Your task to perform on an android device: Add usb-a to the cart on newegg.com, then select checkout. Image 0: 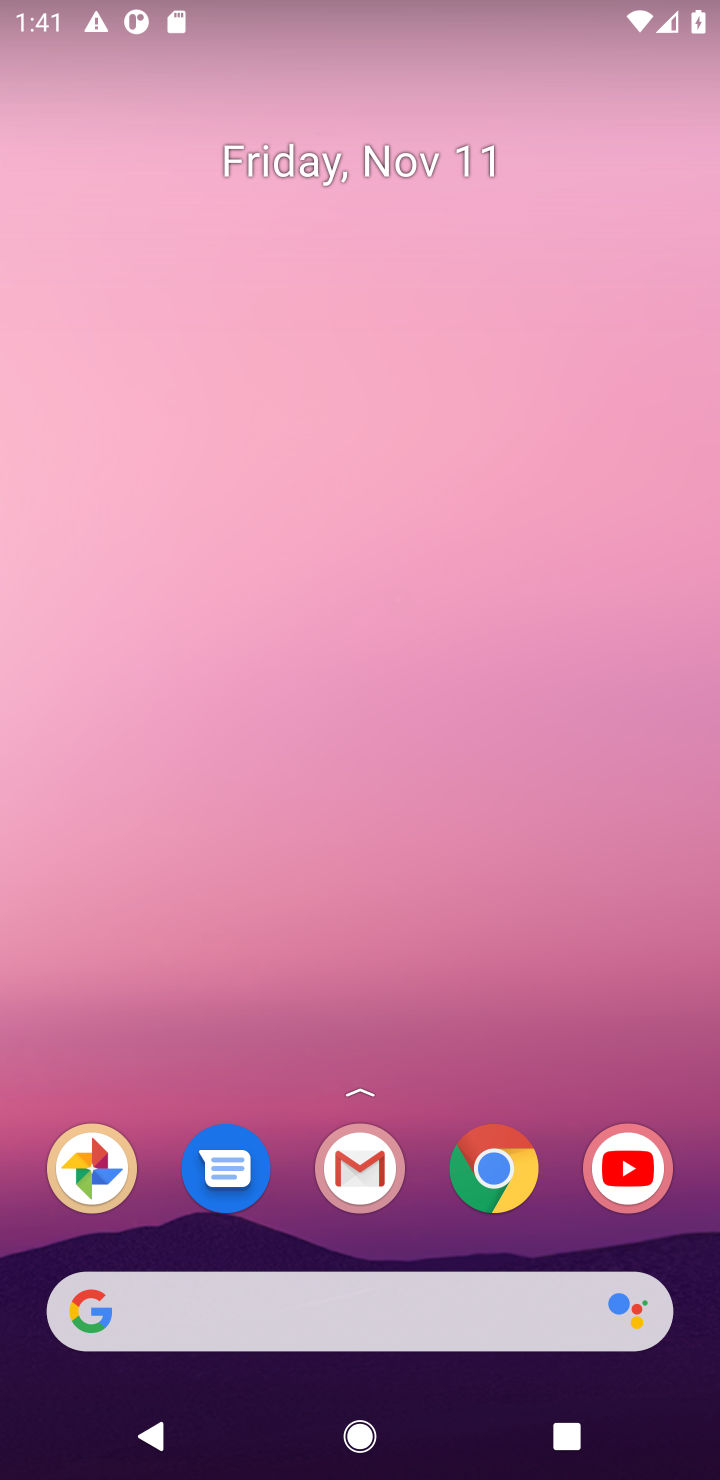
Step 0: click (496, 1176)
Your task to perform on an android device: Add usb-a to the cart on newegg.com, then select checkout. Image 1: 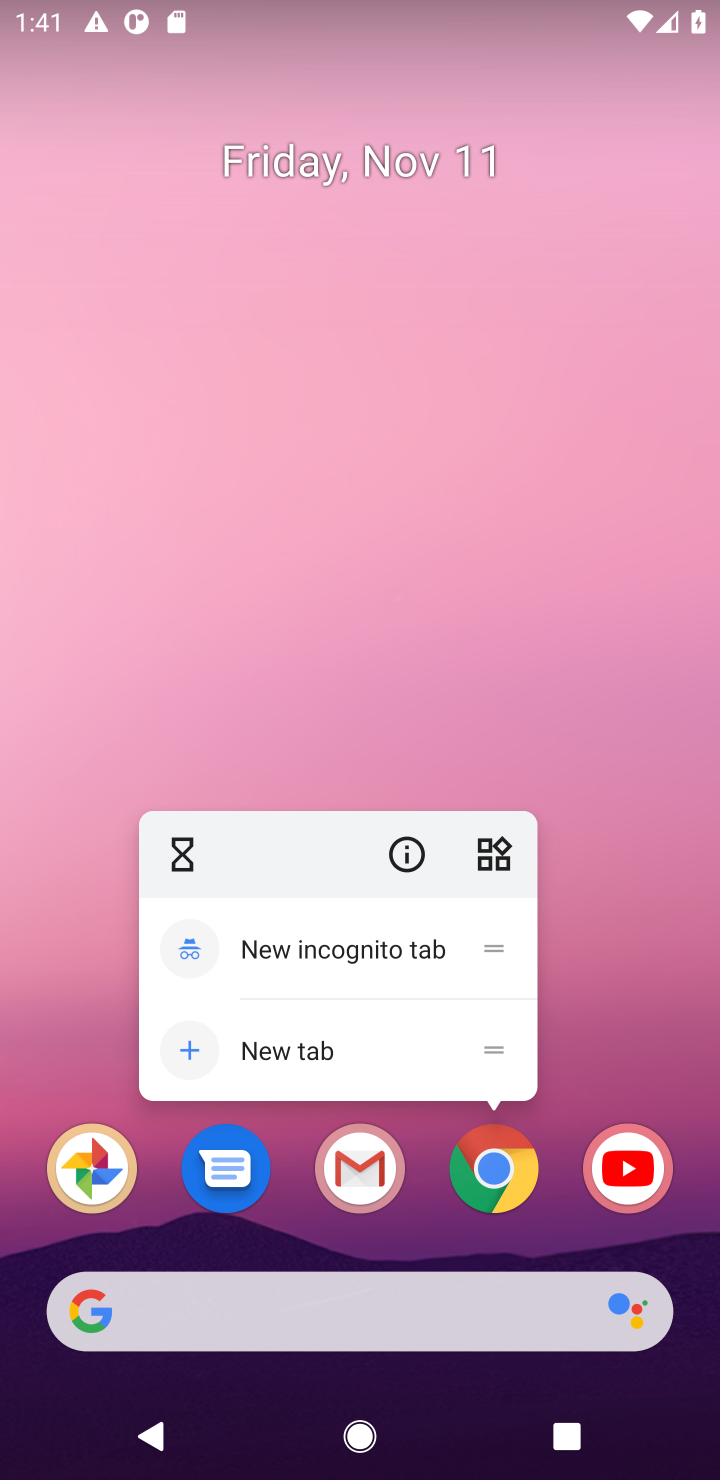
Step 1: click (496, 1176)
Your task to perform on an android device: Add usb-a to the cart on newegg.com, then select checkout. Image 2: 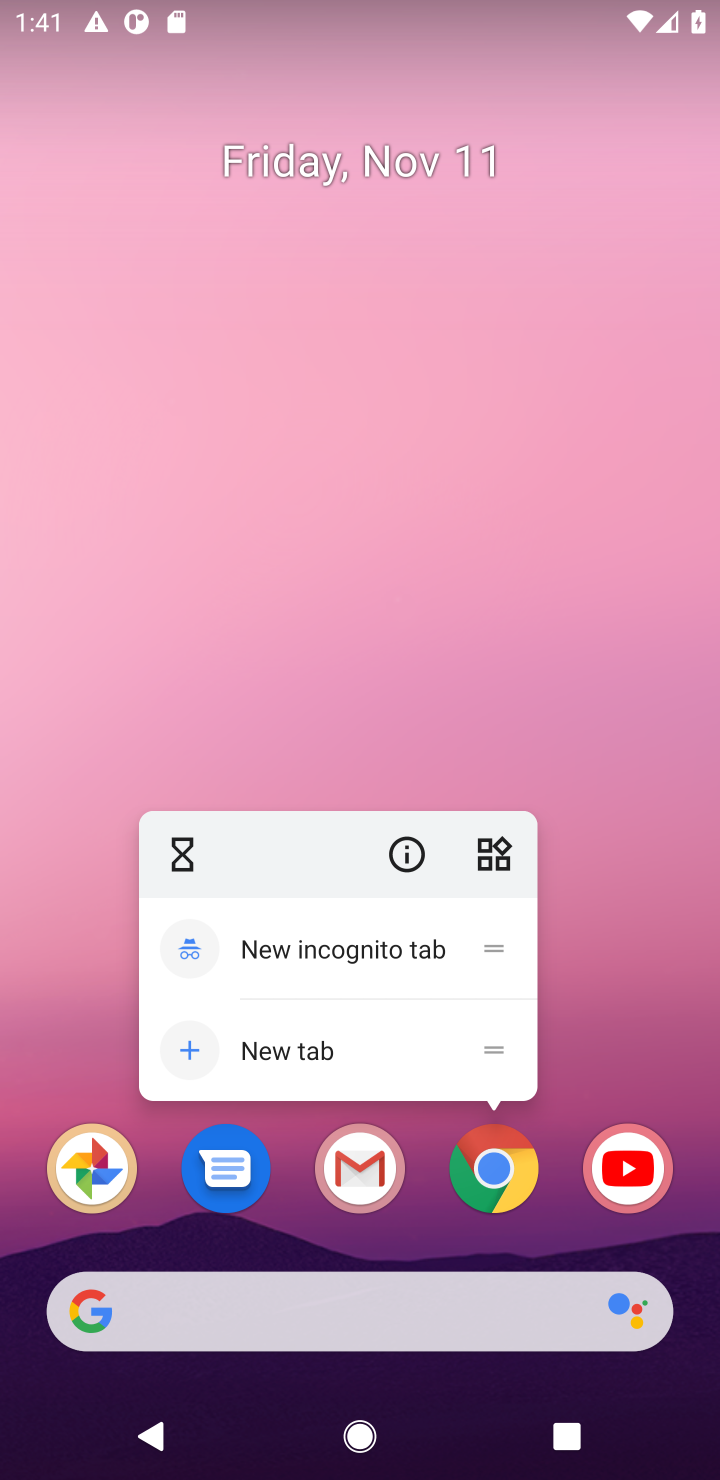
Step 2: click (496, 1176)
Your task to perform on an android device: Add usb-a to the cart on newegg.com, then select checkout. Image 3: 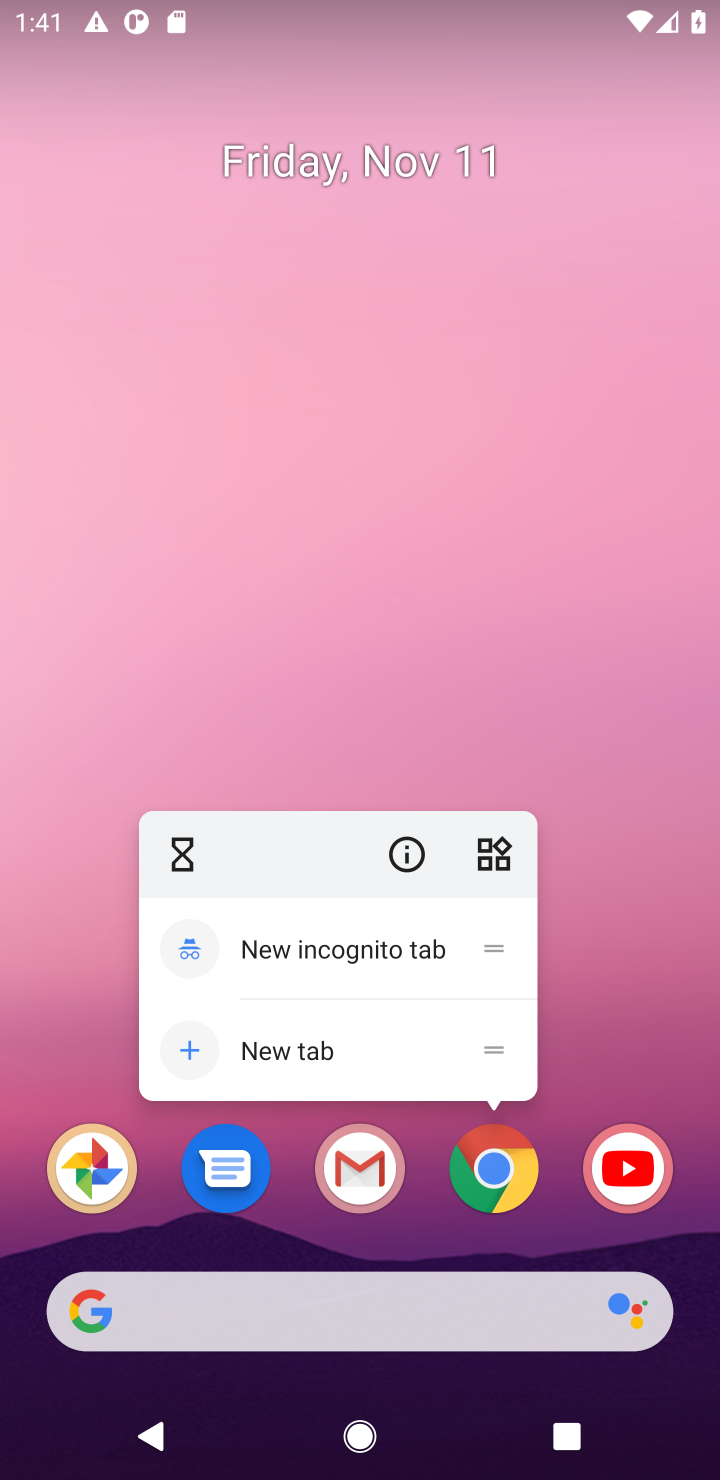
Step 3: click (622, 1026)
Your task to perform on an android device: Add usb-a to the cart on newegg.com, then select checkout. Image 4: 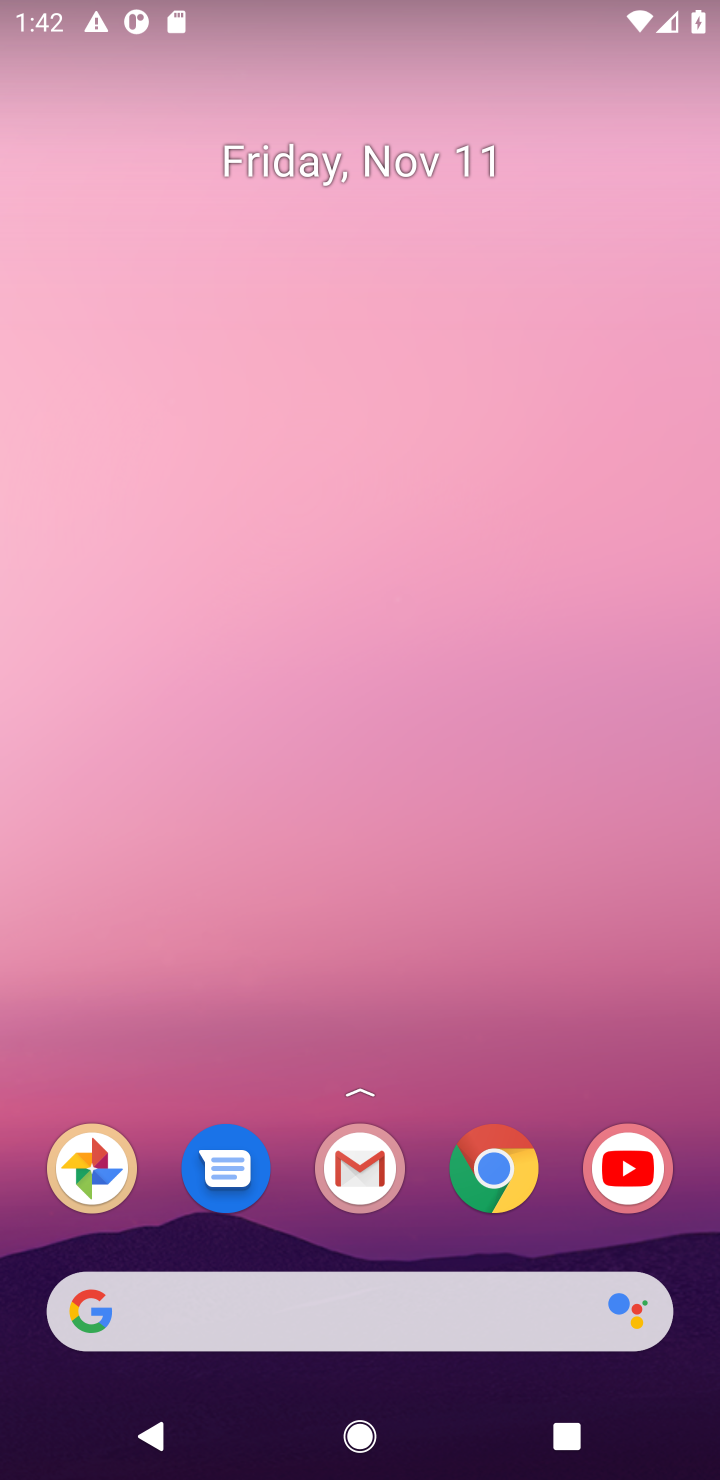
Step 4: click (506, 1178)
Your task to perform on an android device: Add usb-a to the cart on newegg.com, then select checkout. Image 5: 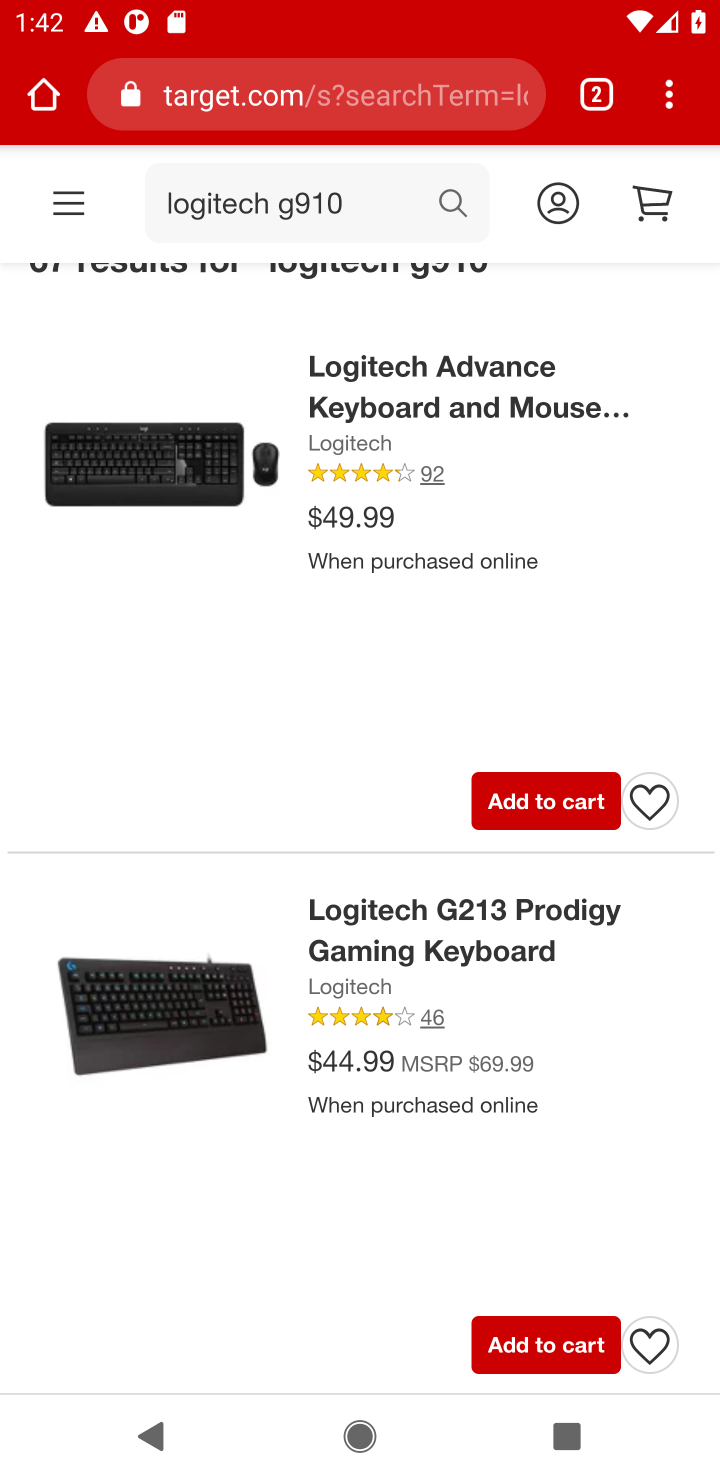
Step 5: click (258, 102)
Your task to perform on an android device: Add usb-a to the cart on newegg.com, then select checkout. Image 6: 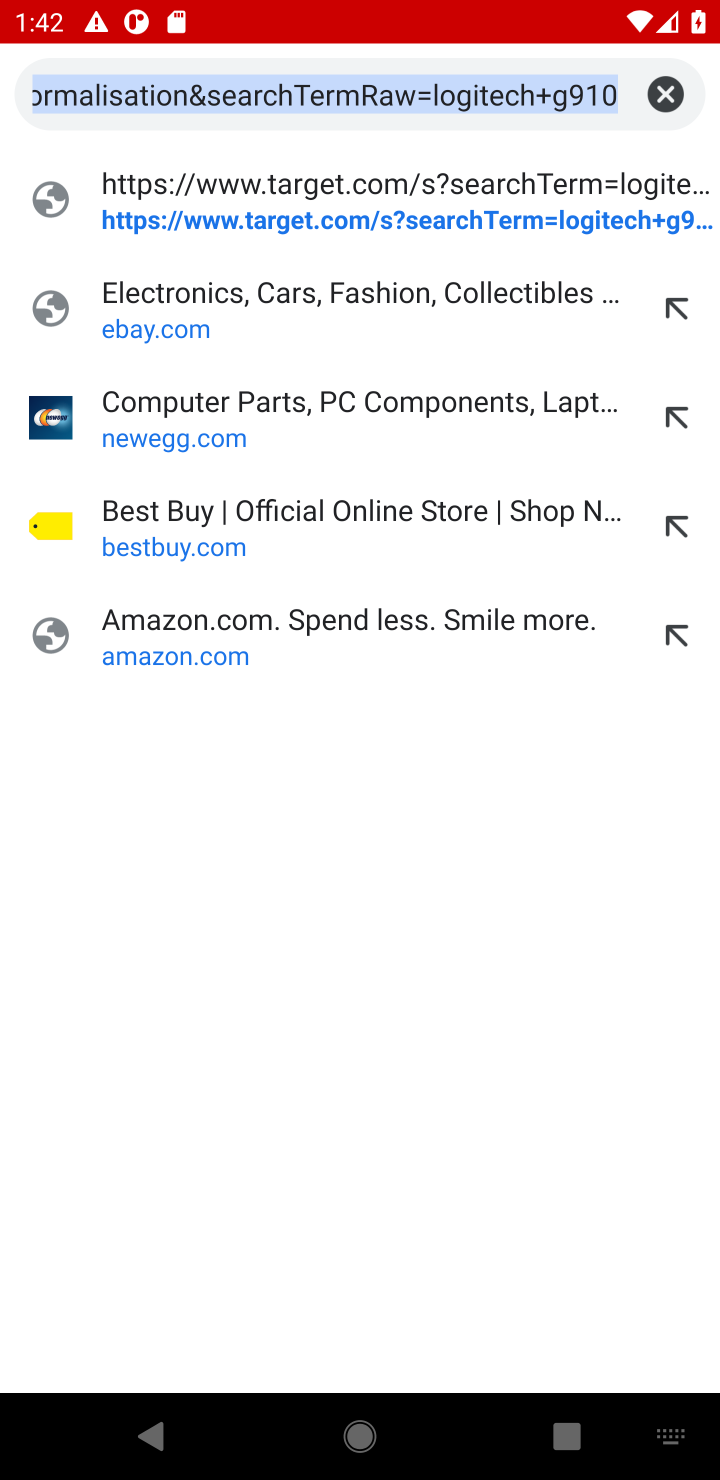
Step 6: click (153, 419)
Your task to perform on an android device: Add usb-a to the cart on newegg.com, then select checkout. Image 7: 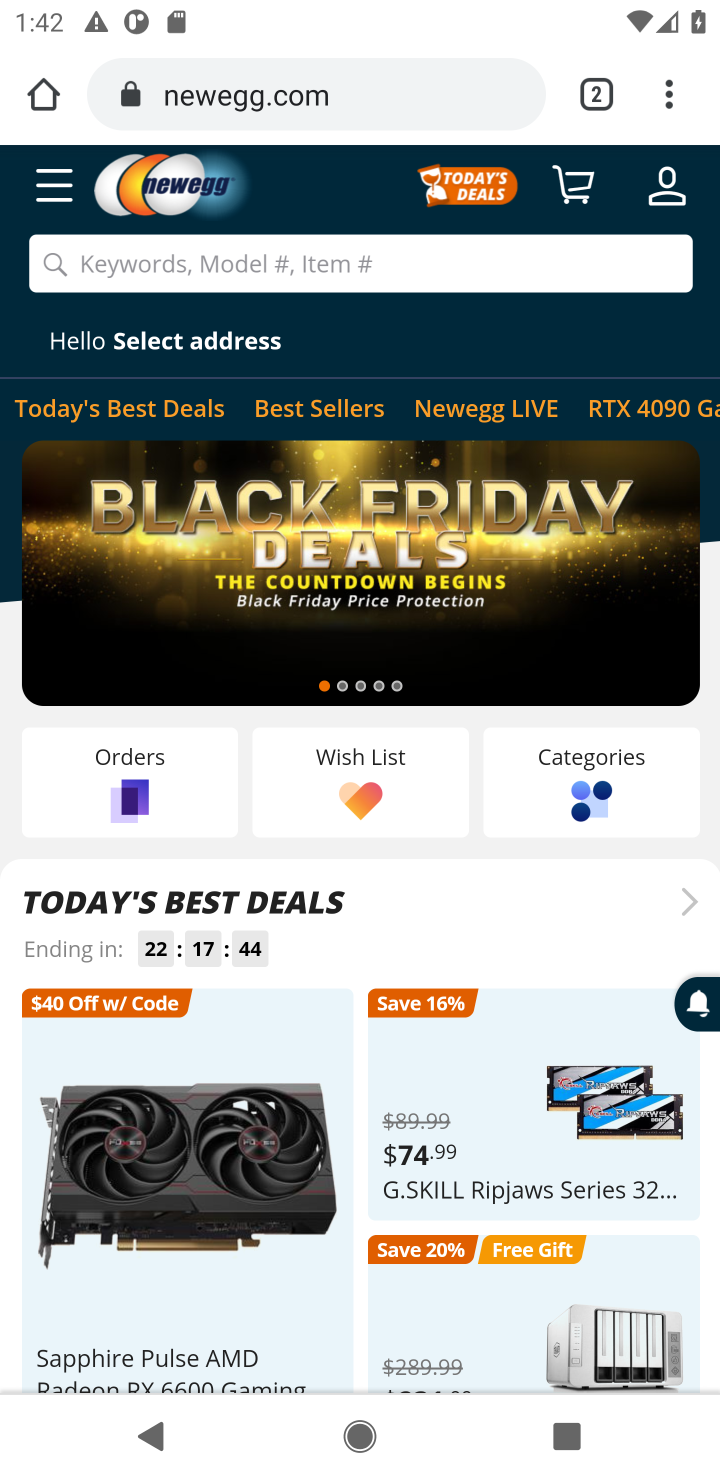
Step 7: click (170, 267)
Your task to perform on an android device: Add usb-a to the cart on newegg.com, then select checkout. Image 8: 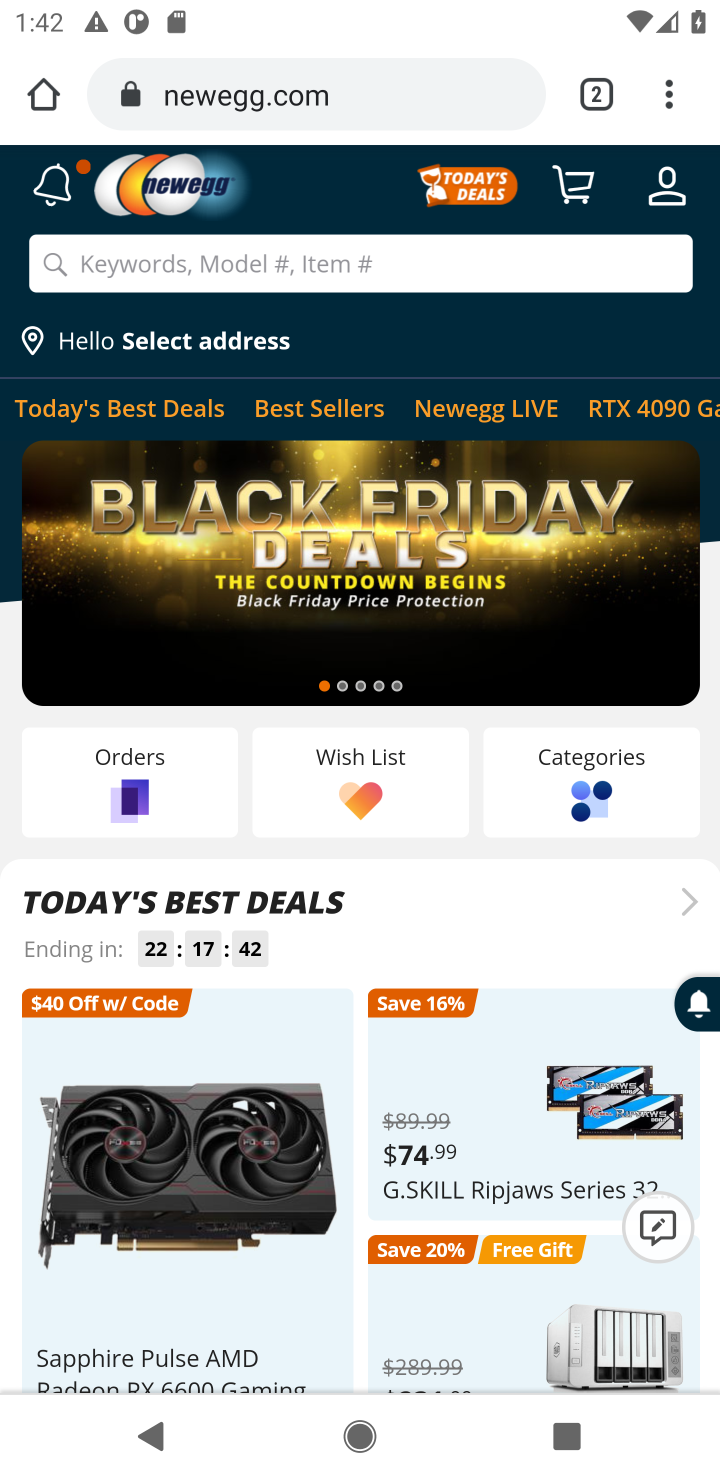
Step 8: type "usb-a"
Your task to perform on an android device: Add usb-a to the cart on newegg.com, then select checkout. Image 9: 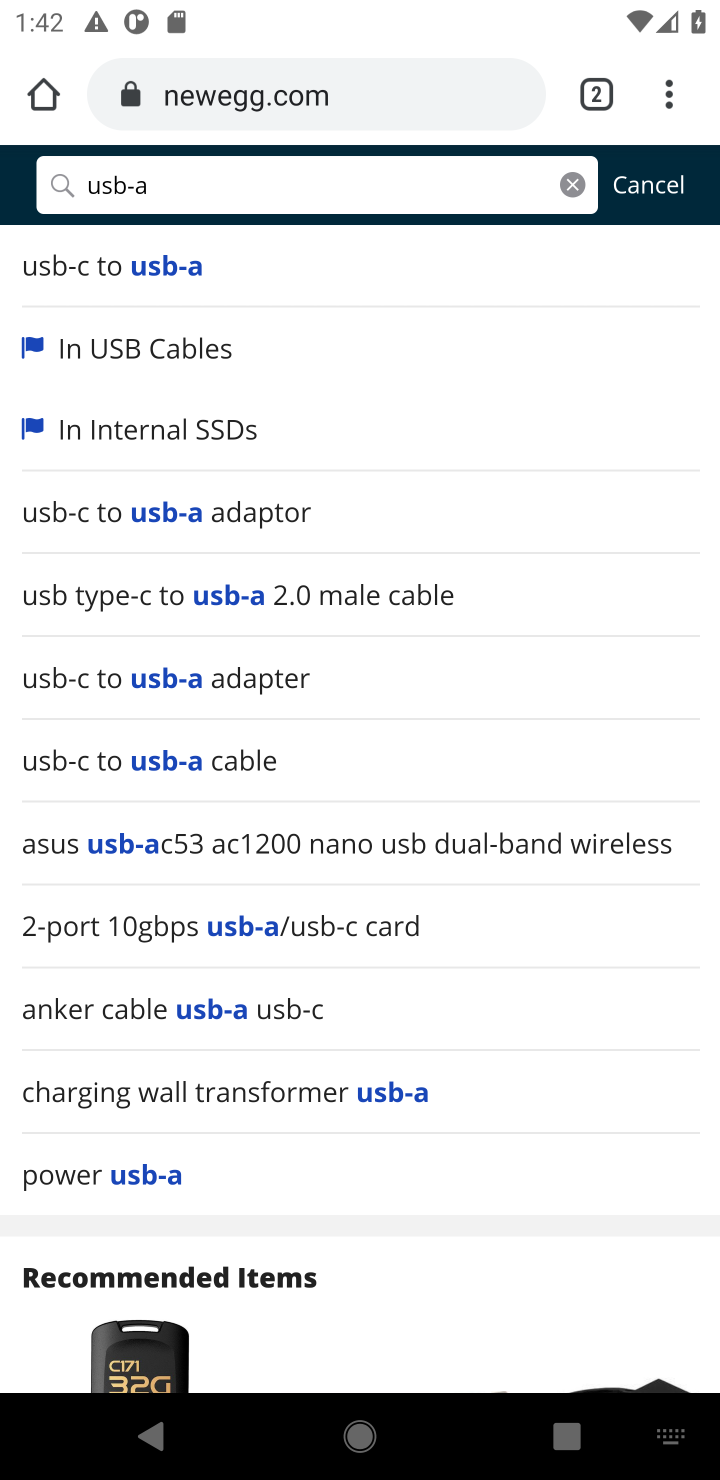
Step 9: click (134, 1181)
Your task to perform on an android device: Add usb-a to the cart on newegg.com, then select checkout. Image 10: 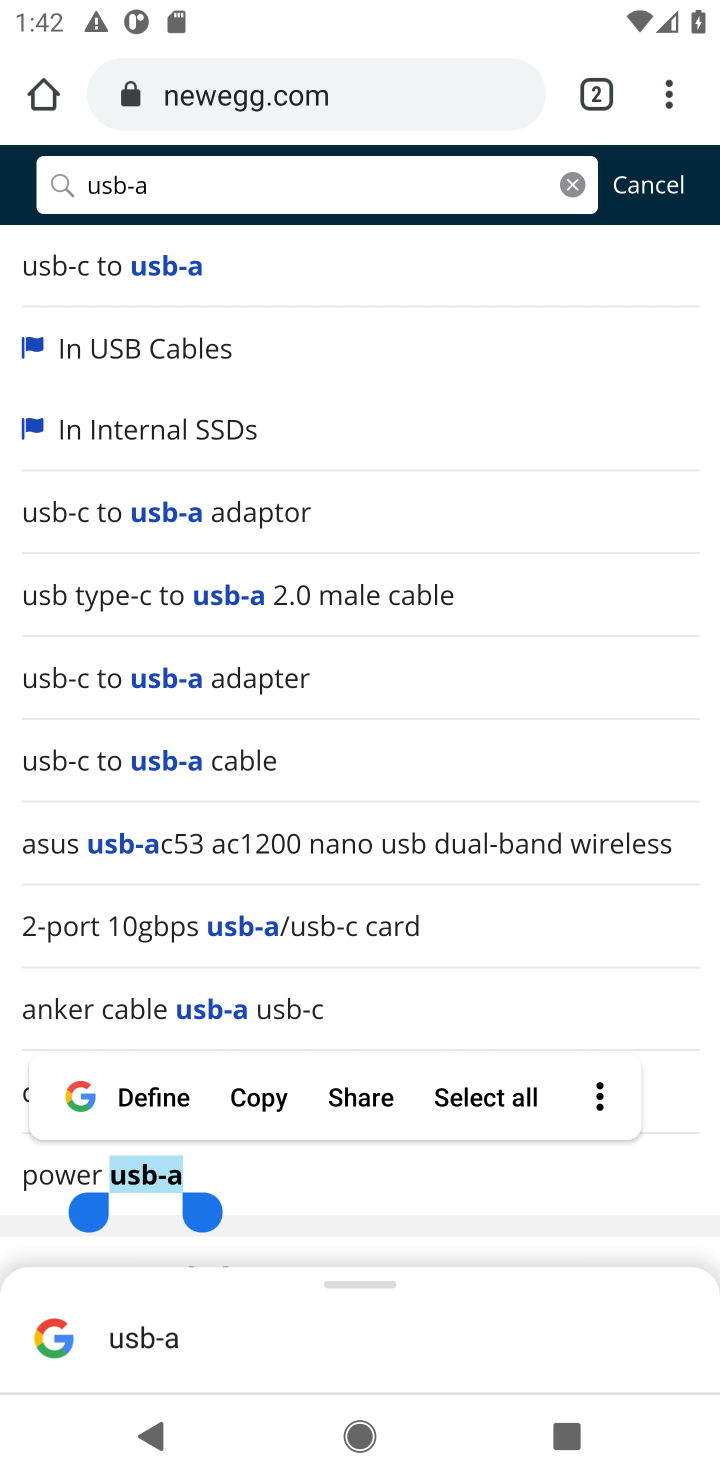
Step 10: click (92, 1178)
Your task to perform on an android device: Add usb-a to the cart on newegg.com, then select checkout. Image 11: 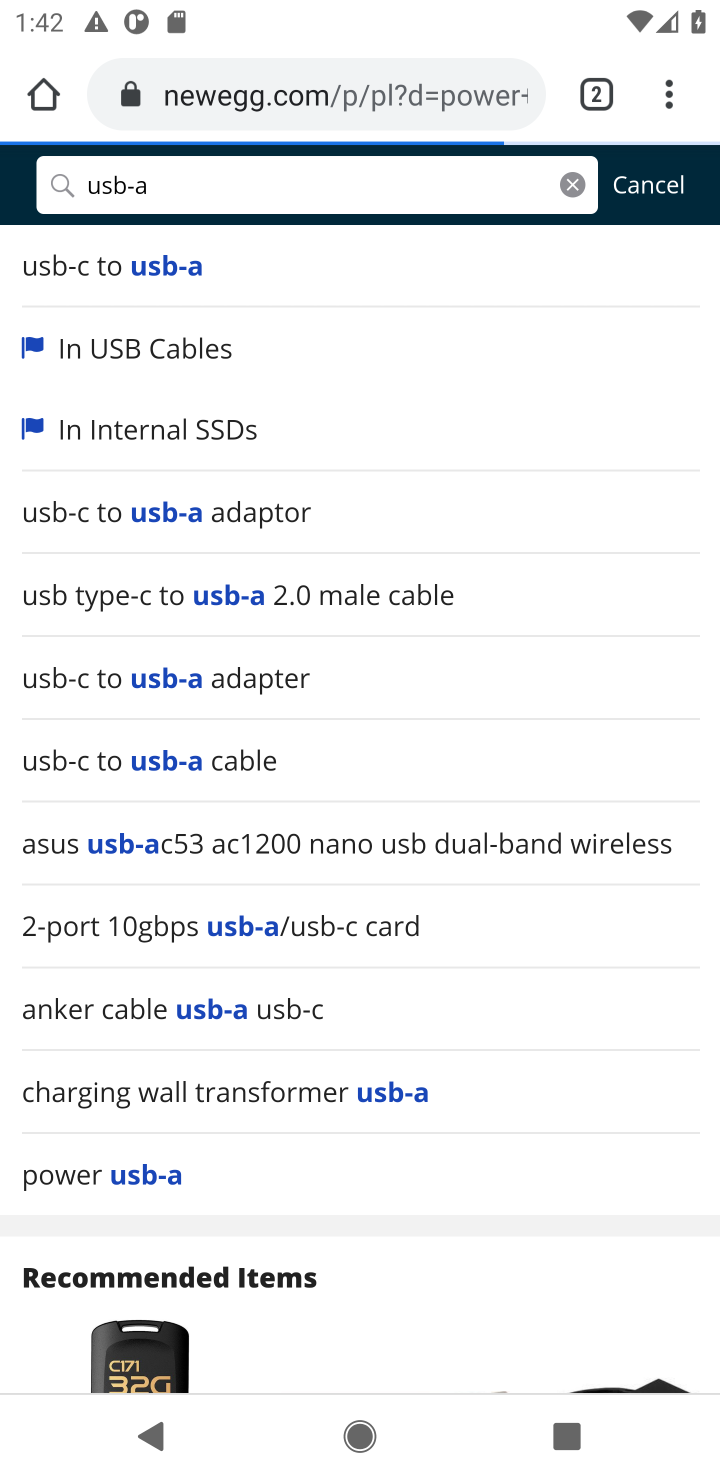
Step 11: click (63, 191)
Your task to perform on an android device: Add usb-a to the cart on newegg.com, then select checkout. Image 12: 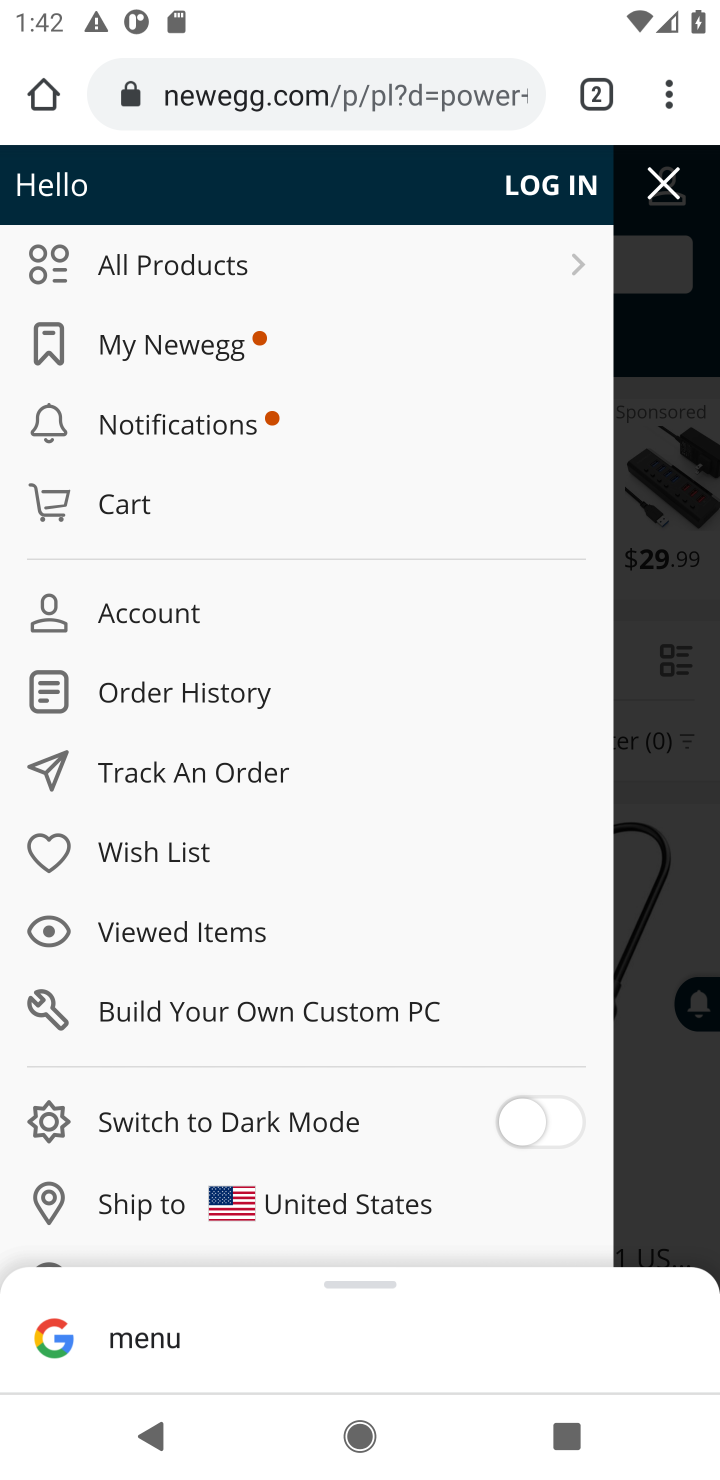
Step 12: click (659, 200)
Your task to perform on an android device: Add usb-a to the cart on newegg.com, then select checkout. Image 13: 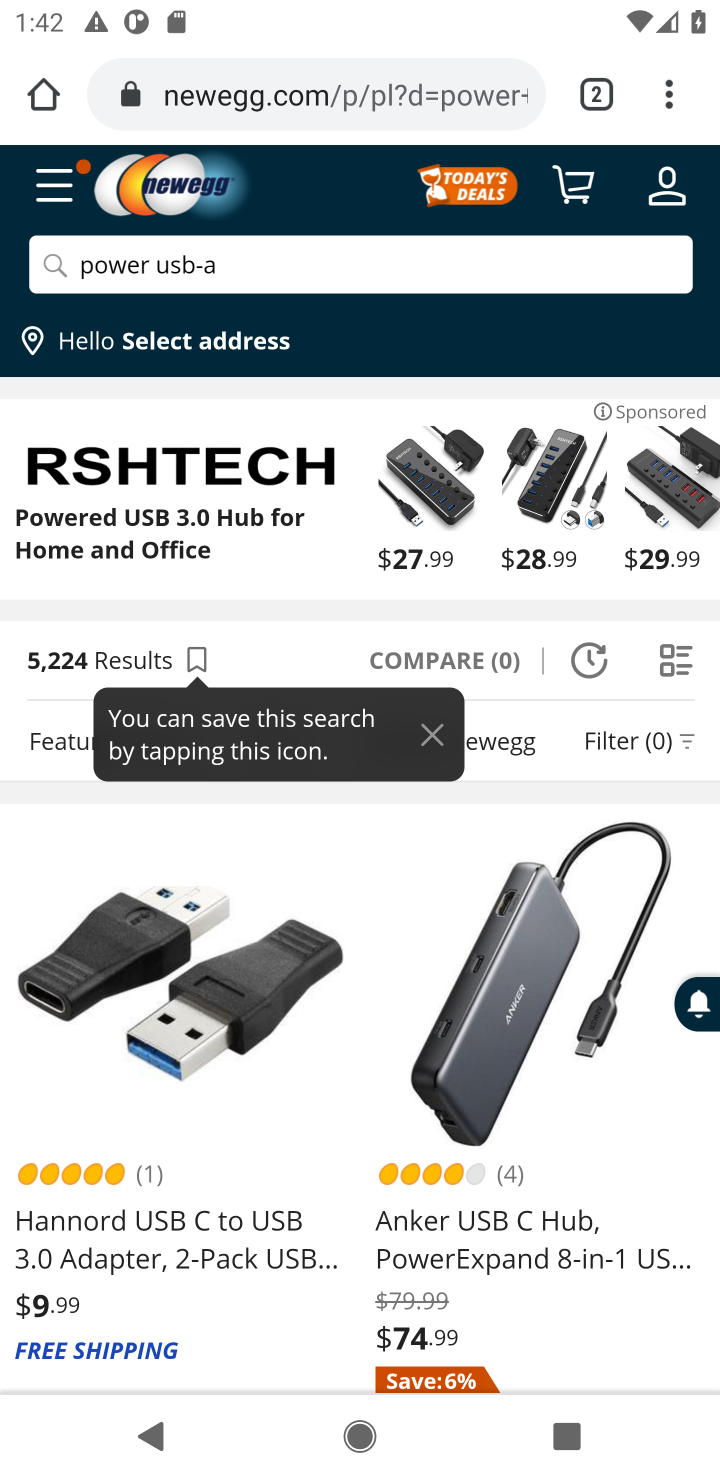
Step 13: click (66, 264)
Your task to perform on an android device: Add usb-a to the cart on newegg.com, then select checkout. Image 14: 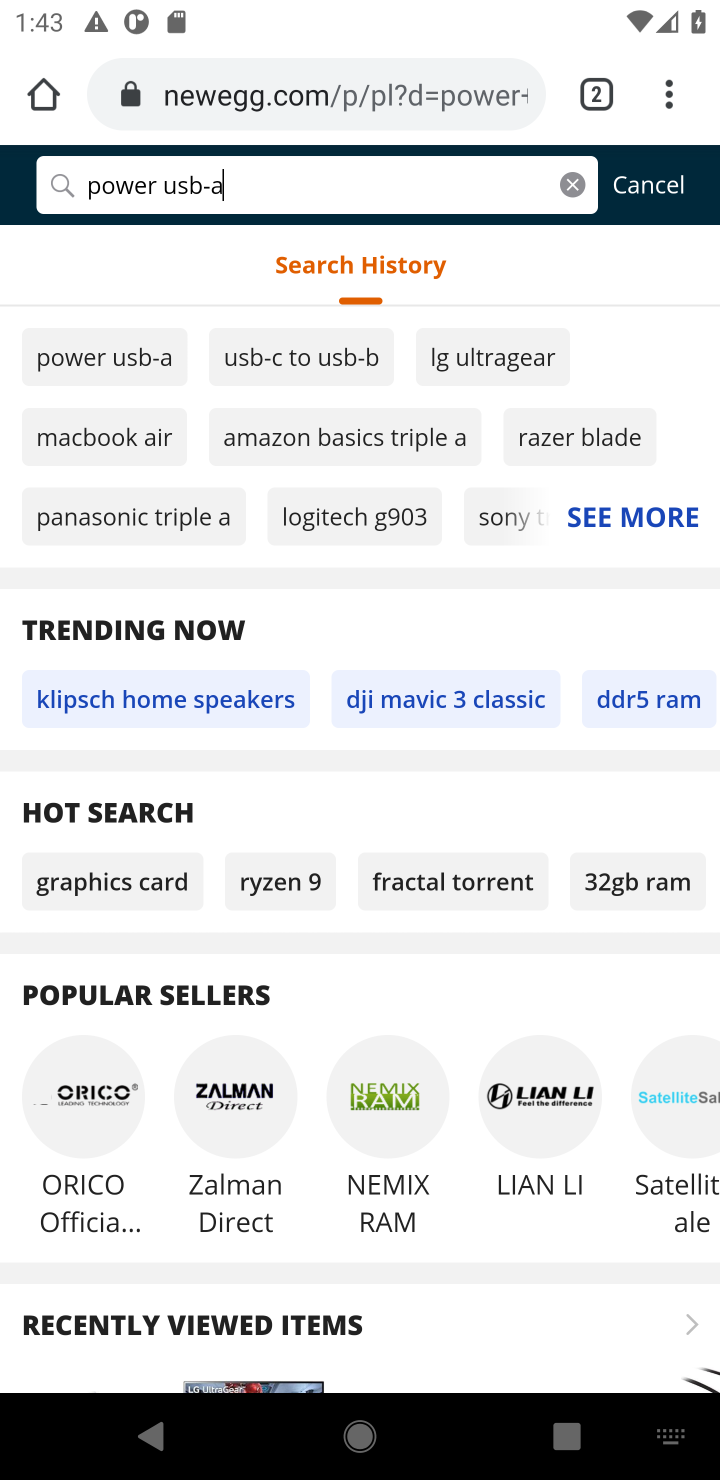
Step 14: click (123, 347)
Your task to perform on an android device: Add usb-a to the cart on newegg.com, then select checkout. Image 15: 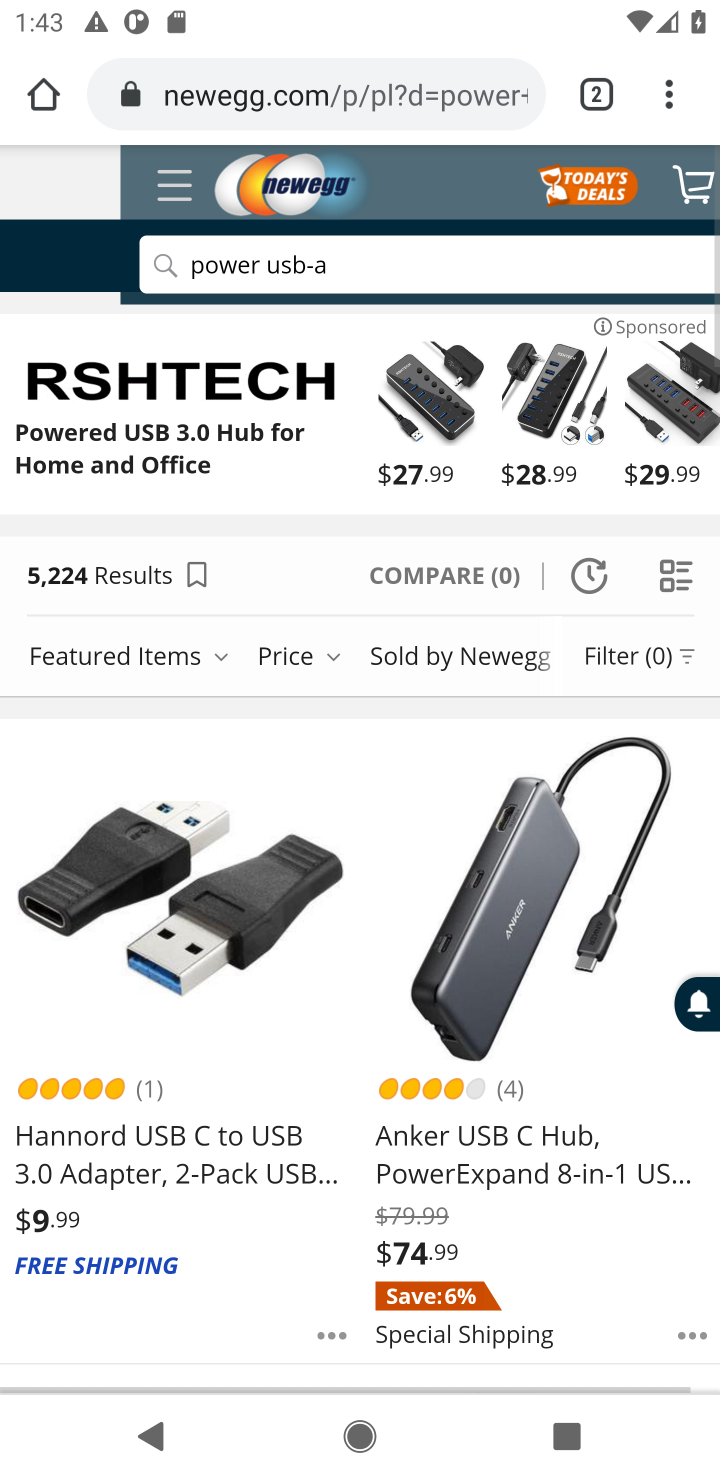
Step 15: click (98, 367)
Your task to perform on an android device: Add usb-a to the cart on newegg.com, then select checkout. Image 16: 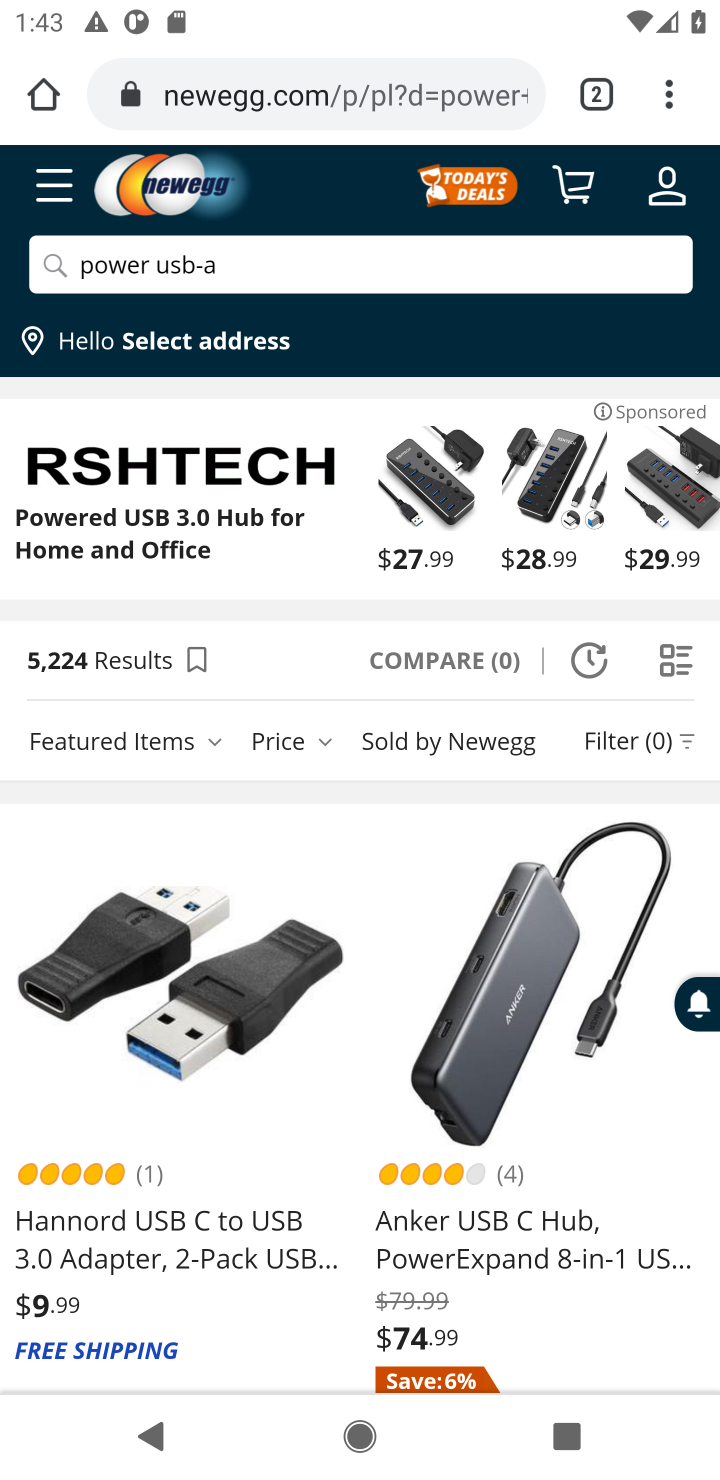
Step 16: drag from (195, 741) to (199, 365)
Your task to perform on an android device: Add usb-a to the cart on newegg.com, then select checkout. Image 17: 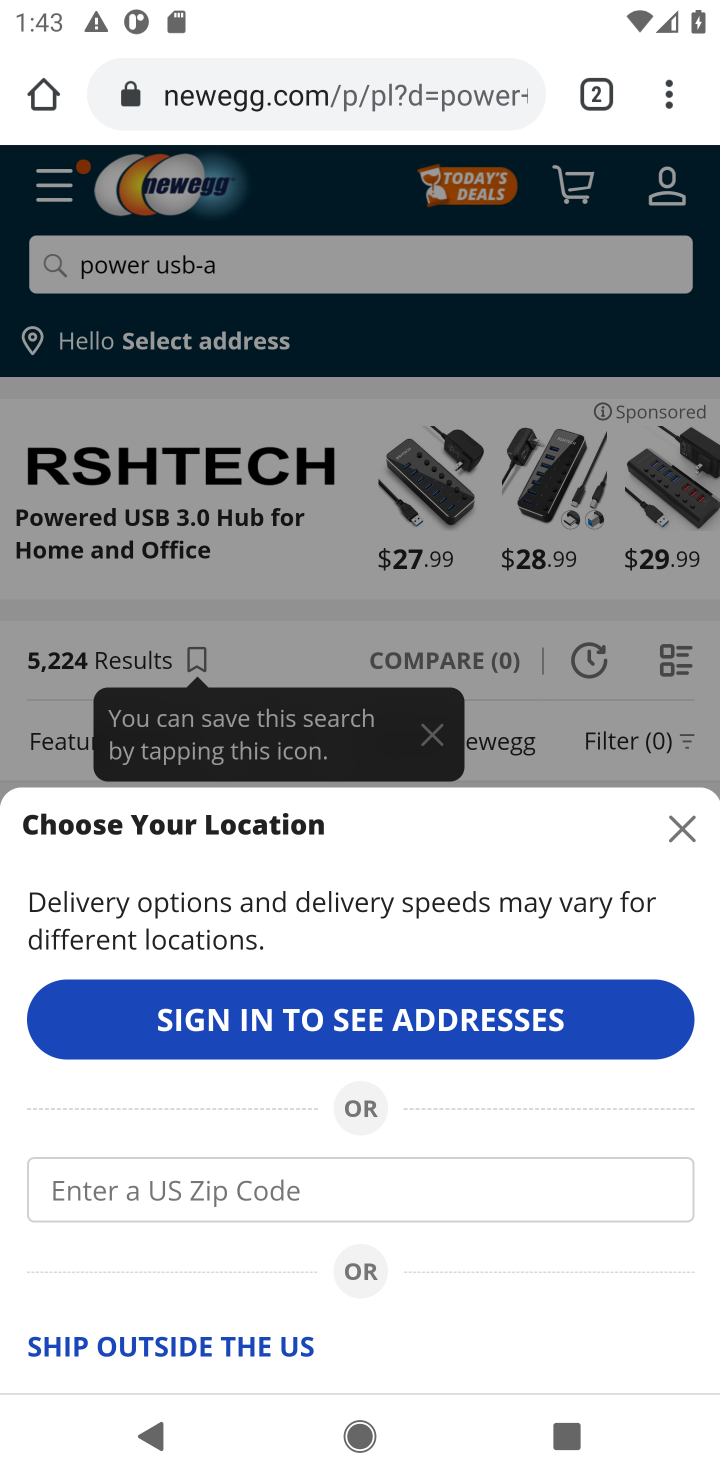
Step 17: click (683, 820)
Your task to perform on an android device: Add usb-a to the cart on newegg.com, then select checkout. Image 18: 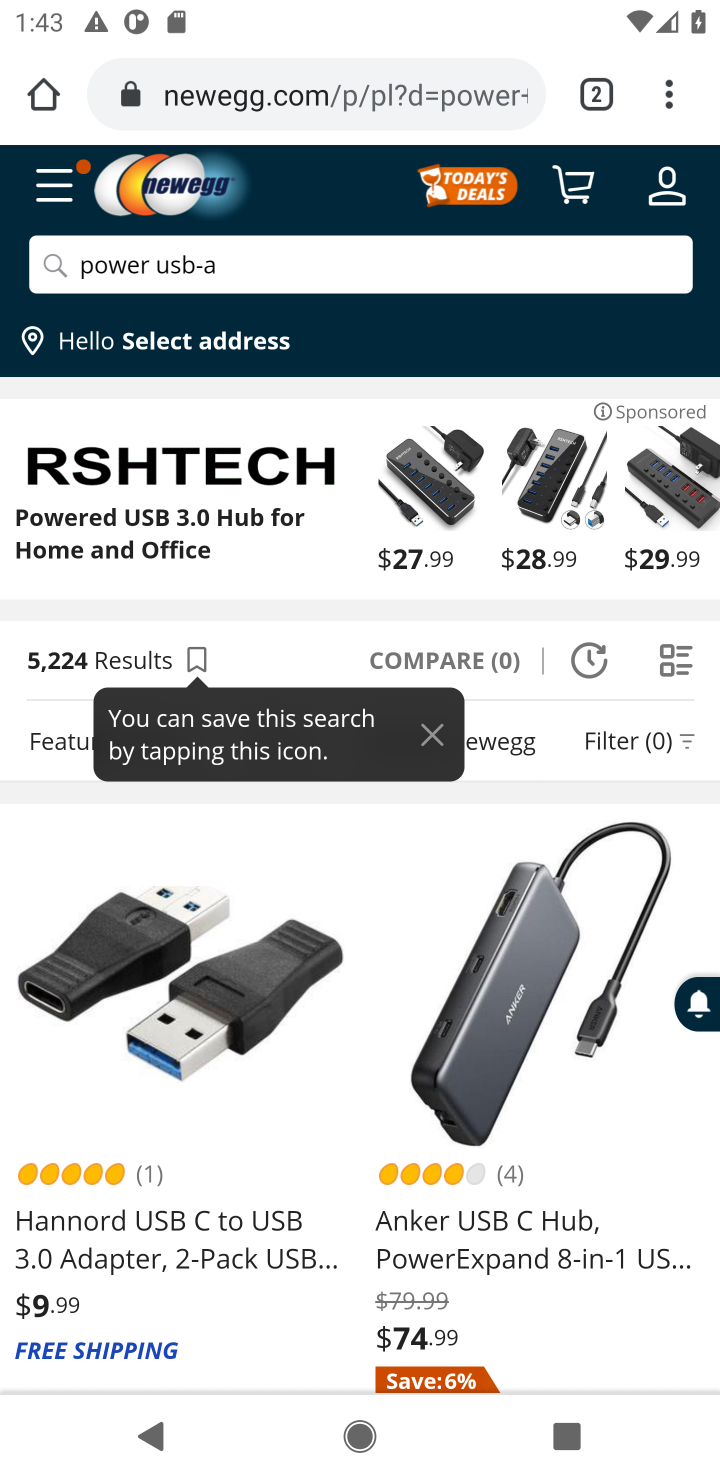
Step 18: click (161, 1071)
Your task to perform on an android device: Add usb-a to the cart on newegg.com, then select checkout. Image 19: 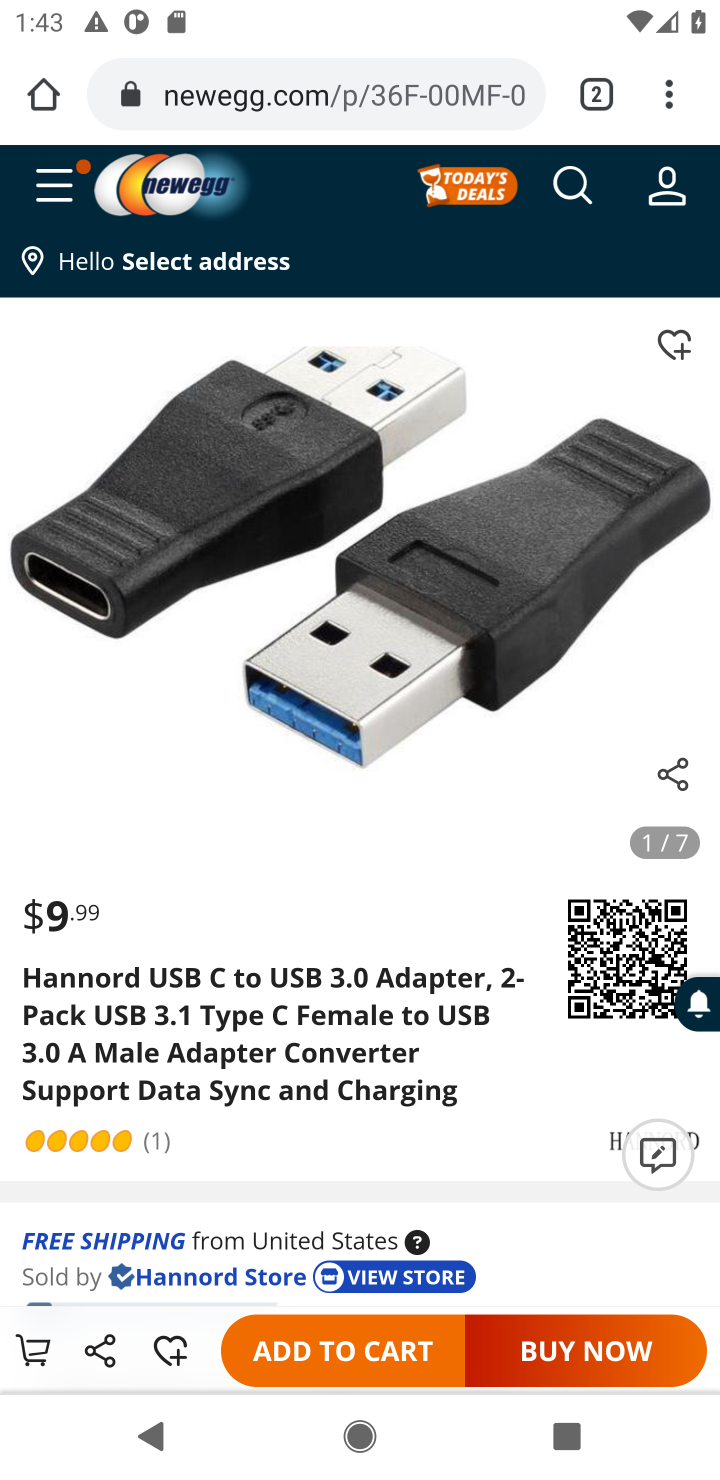
Step 19: click (333, 1350)
Your task to perform on an android device: Add usb-a to the cart on newegg.com, then select checkout. Image 20: 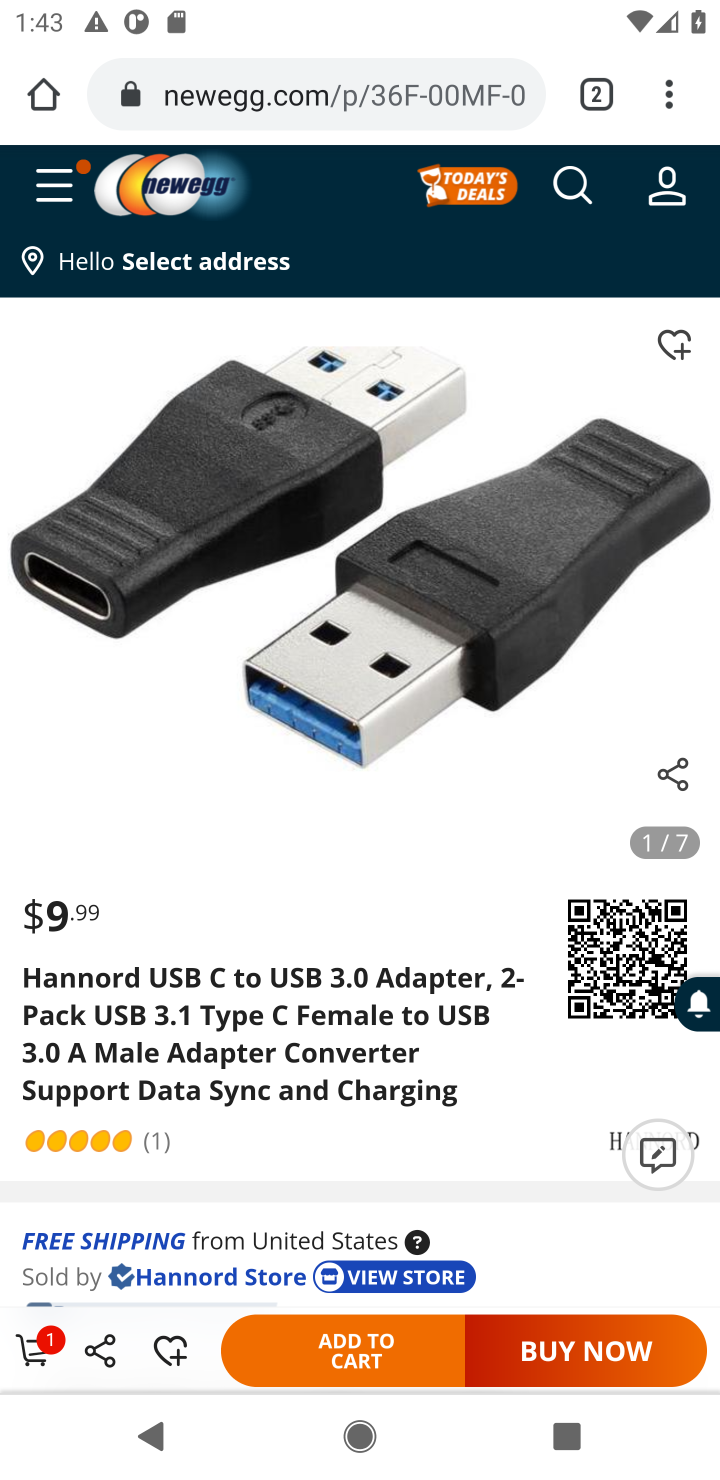
Step 20: click (48, 1343)
Your task to perform on an android device: Add usb-a to the cart on newegg.com, then select checkout. Image 21: 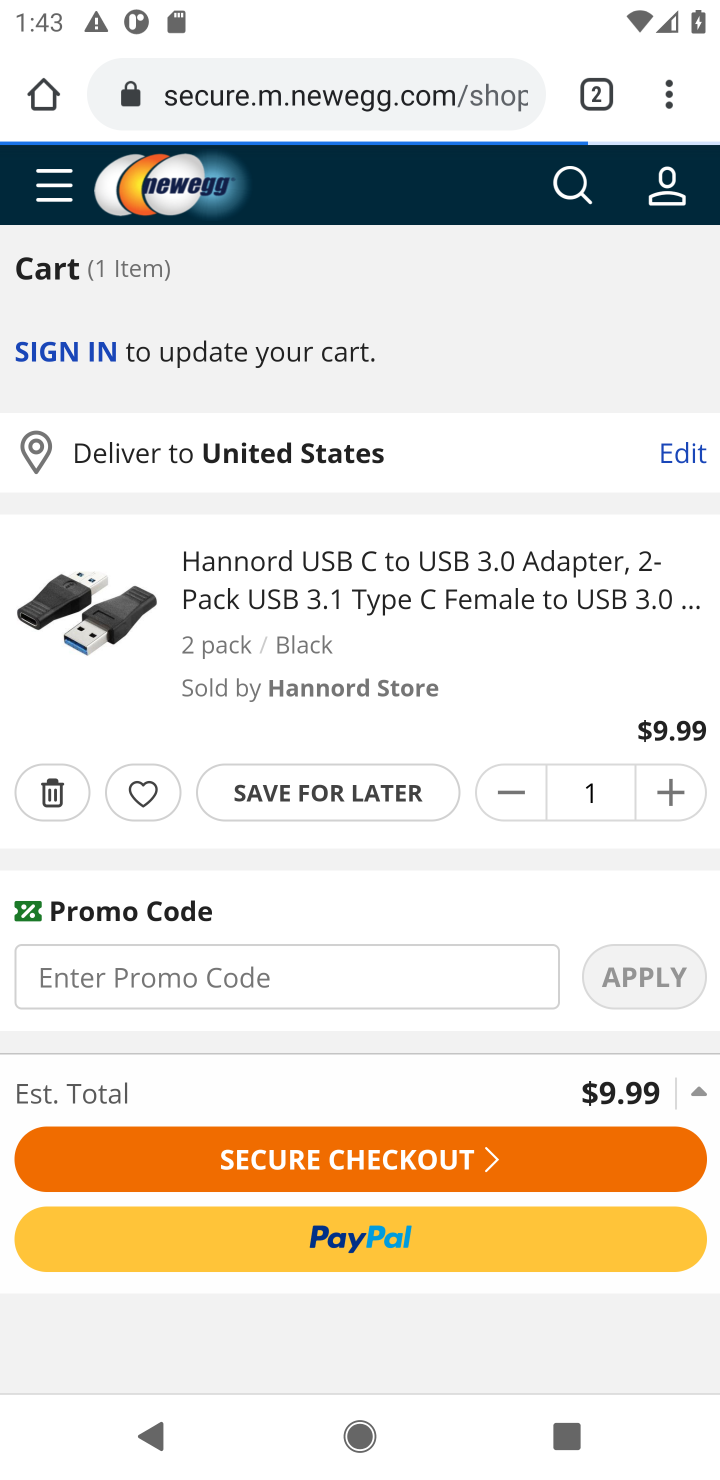
Step 21: click (256, 1156)
Your task to perform on an android device: Add usb-a to the cart on newegg.com, then select checkout. Image 22: 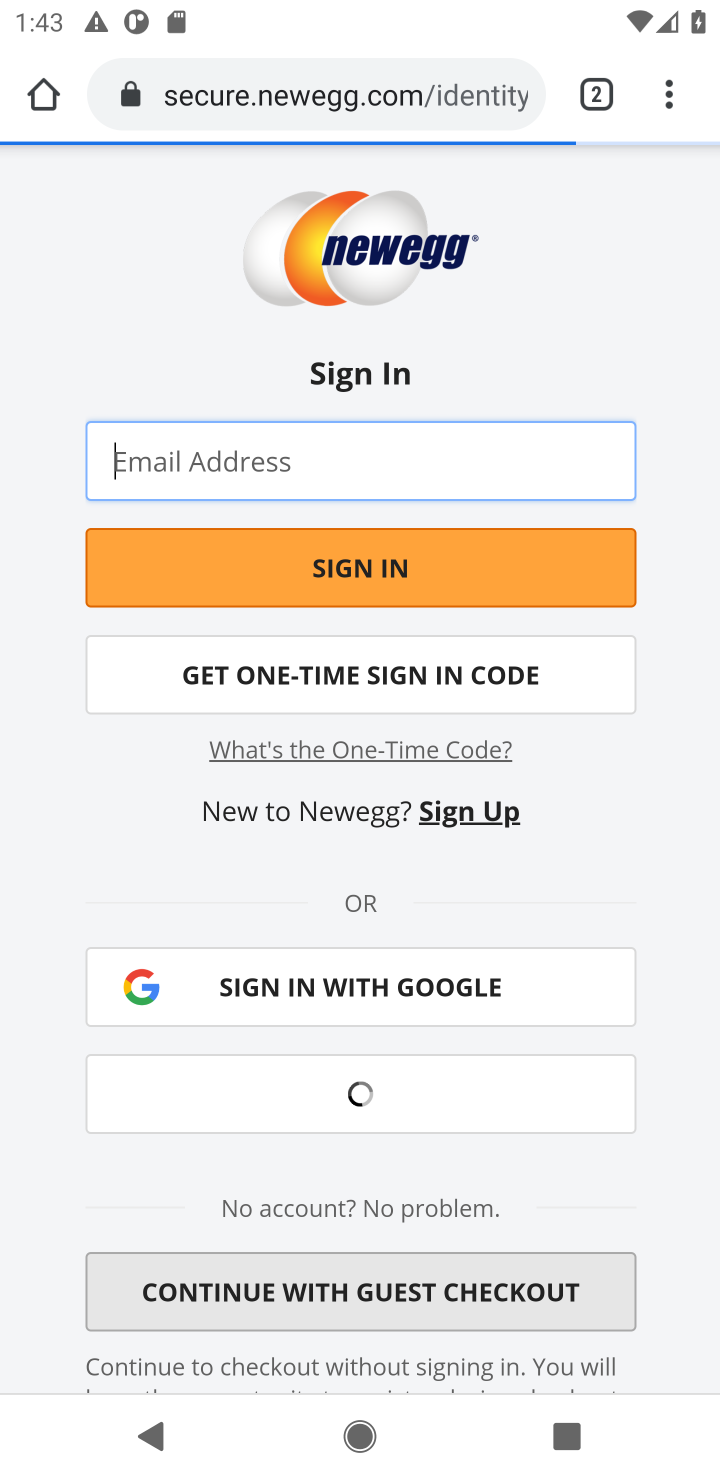
Step 22: task complete